Your task to perform on an android device: Look up the best rated desk lamps on IKEA Image 0: 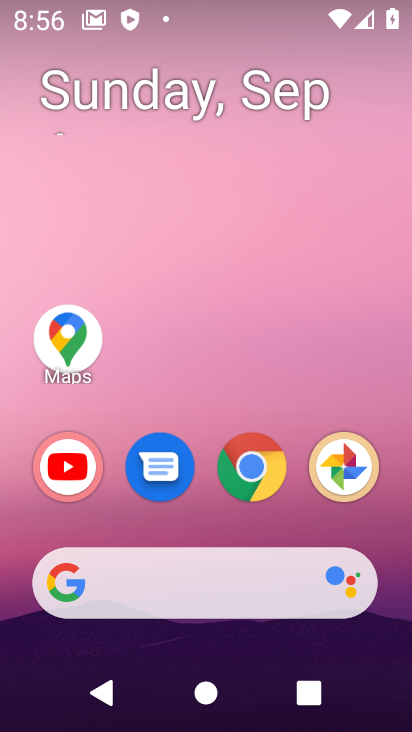
Step 0: click (251, 461)
Your task to perform on an android device: Look up the best rated desk lamps on IKEA Image 1: 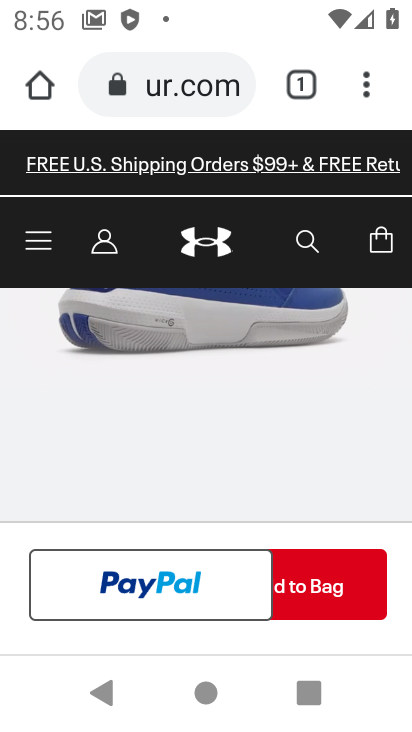
Step 1: click (219, 72)
Your task to perform on an android device: Look up the best rated desk lamps on IKEA Image 2: 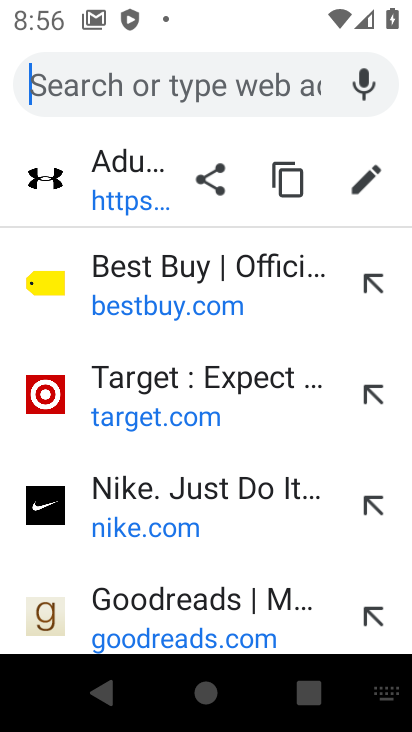
Step 2: type "ikea"
Your task to perform on an android device: Look up the best rated desk lamps on IKEA Image 3: 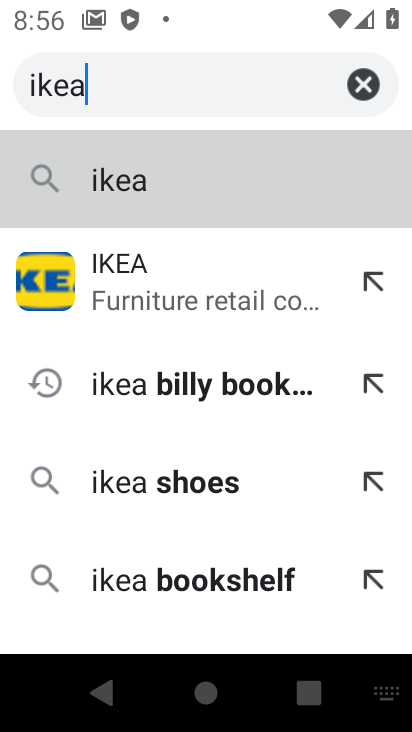
Step 3: type ""
Your task to perform on an android device: Look up the best rated desk lamps on IKEA Image 4: 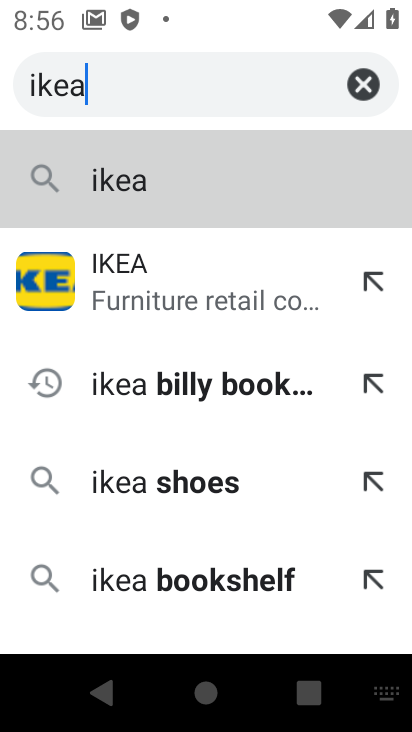
Step 4: click (126, 296)
Your task to perform on an android device: Look up the best rated desk lamps on IKEA Image 5: 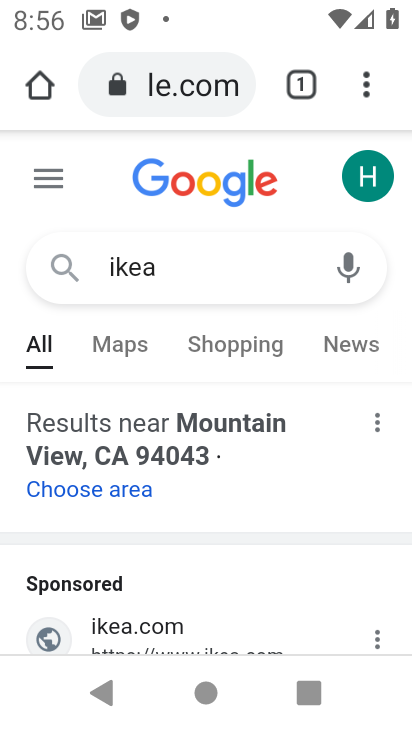
Step 5: drag from (356, 568) to (382, 288)
Your task to perform on an android device: Look up the best rated desk lamps on IKEA Image 6: 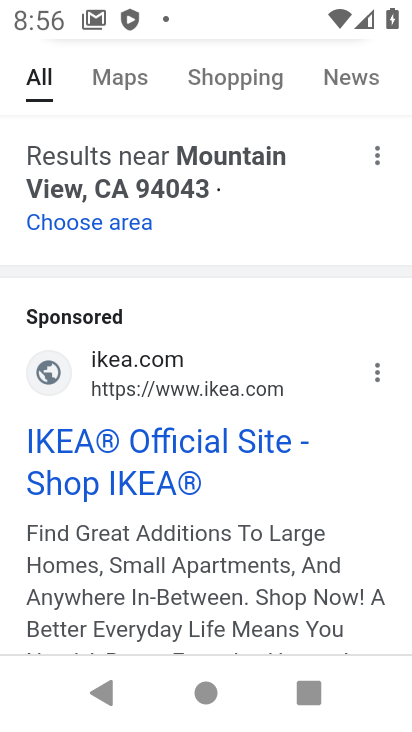
Step 6: click (57, 444)
Your task to perform on an android device: Look up the best rated desk lamps on IKEA Image 7: 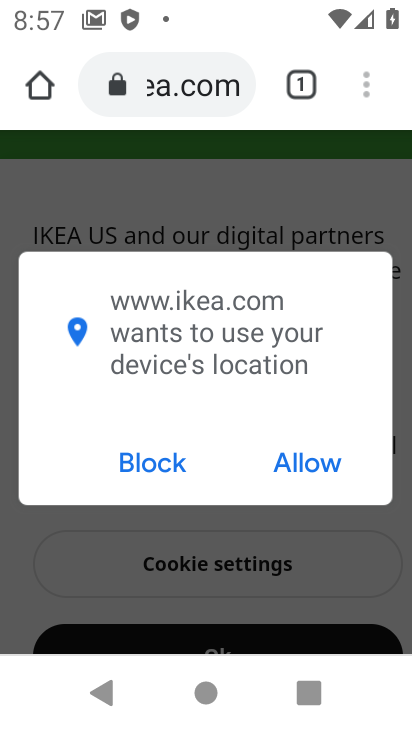
Step 7: click (151, 461)
Your task to perform on an android device: Look up the best rated desk lamps on IKEA Image 8: 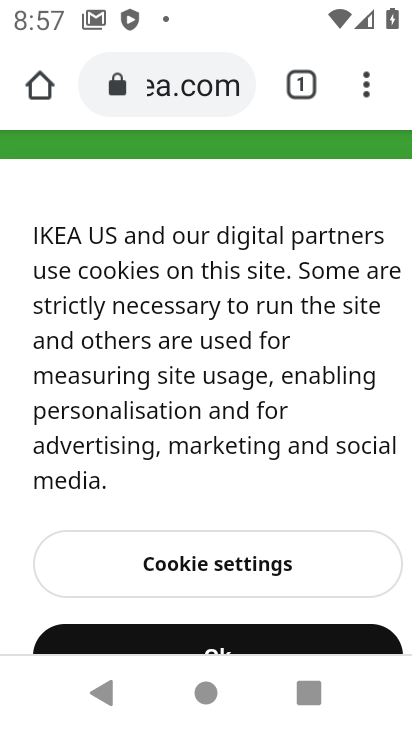
Step 8: drag from (373, 516) to (389, 198)
Your task to perform on an android device: Look up the best rated desk lamps on IKEA Image 9: 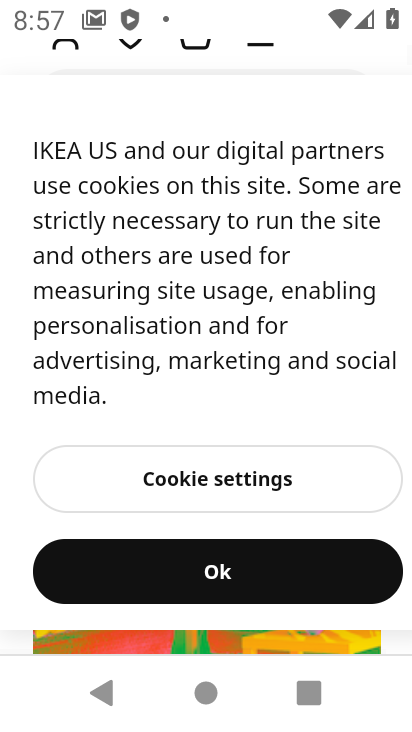
Step 9: click (380, 224)
Your task to perform on an android device: Look up the best rated desk lamps on IKEA Image 10: 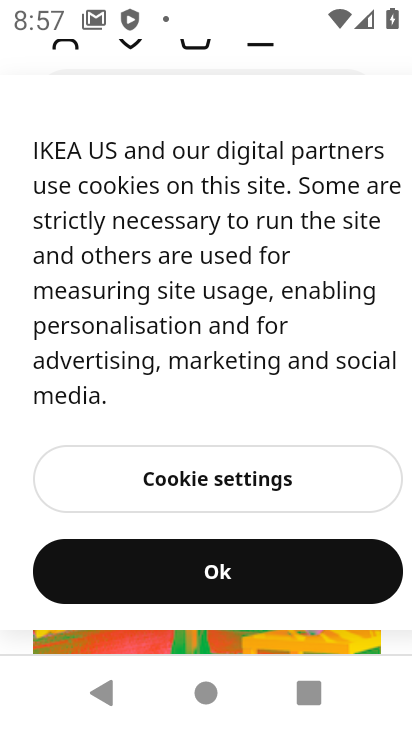
Step 10: drag from (404, 566) to (389, 211)
Your task to perform on an android device: Look up the best rated desk lamps on IKEA Image 11: 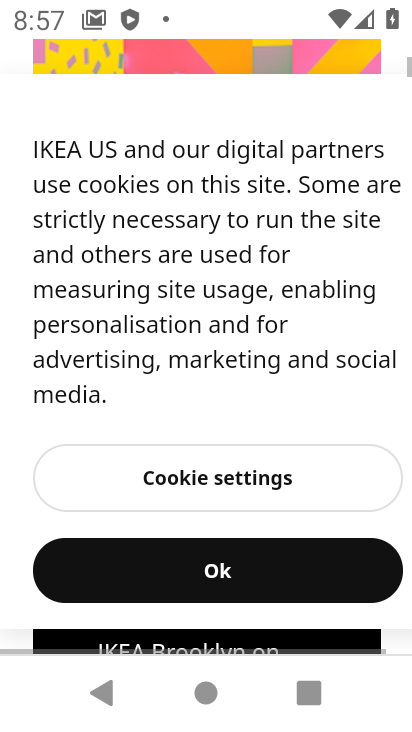
Step 11: drag from (333, 388) to (323, 130)
Your task to perform on an android device: Look up the best rated desk lamps on IKEA Image 12: 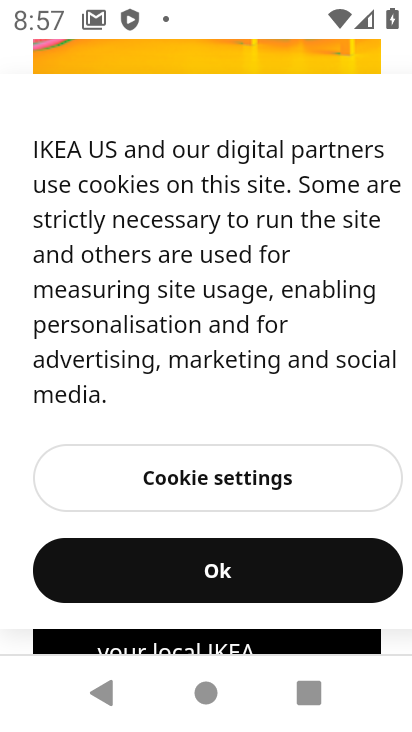
Step 12: drag from (399, 515) to (408, 208)
Your task to perform on an android device: Look up the best rated desk lamps on IKEA Image 13: 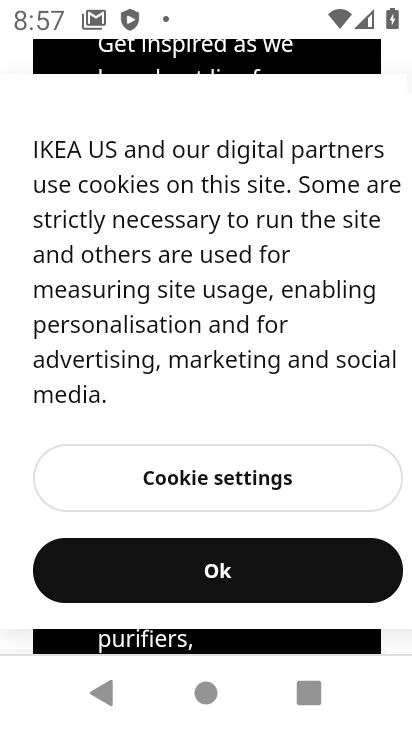
Step 13: drag from (392, 520) to (396, 199)
Your task to perform on an android device: Look up the best rated desk lamps on IKEA Image 14: 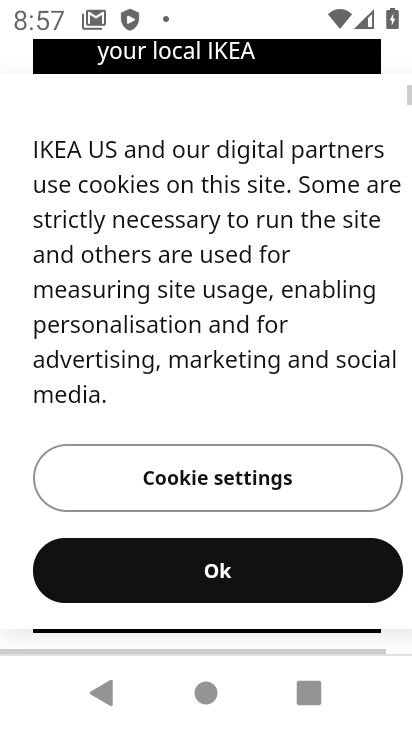
Step 14: drag from (363, 380) to (326, 32)
Your task to perform on an android device: Look up the best rated desk lamps on IKEA Image 15: 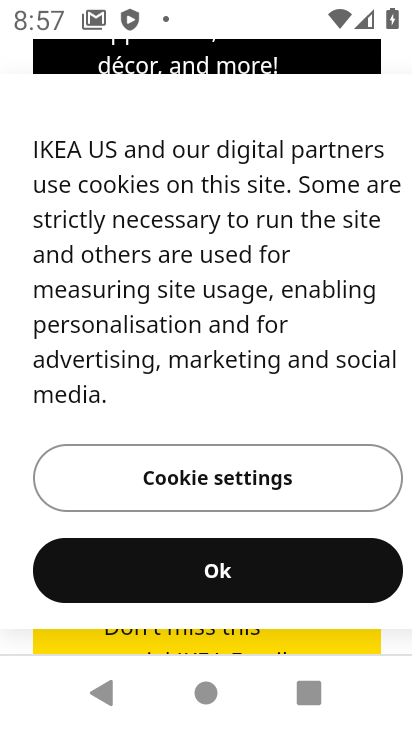
Step 15: drag from (366, 351) to (361, 561)
Your task to perform on an android device: Look up the best rated desk lamps on IKEA Image 16: 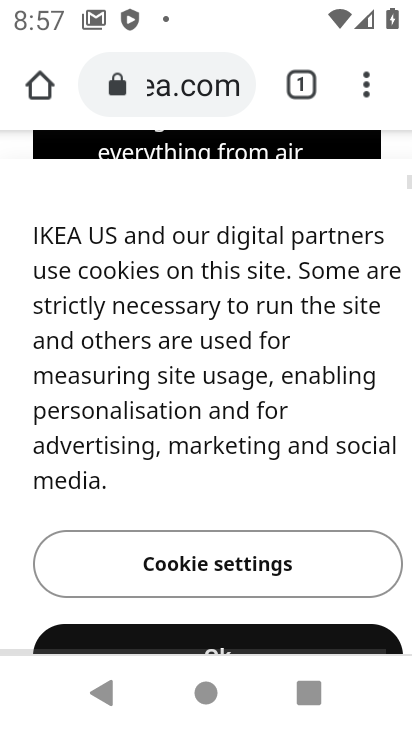
Step 16: drag from (366, 268) to (360, 714)
Your task to perform on an android device: Look up the best rated desk lamps on IKEA Image 17: 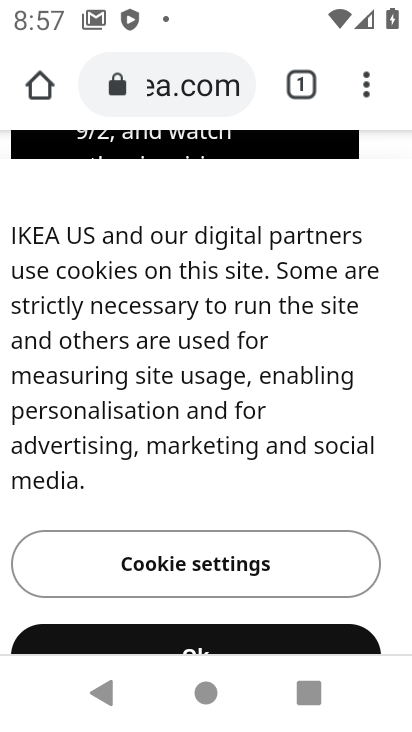
Step 17: drag from (358, 302) to (318, 638)
Your task to perform on an android device: Look up the best rated desk lamps on IKEA Image 18: 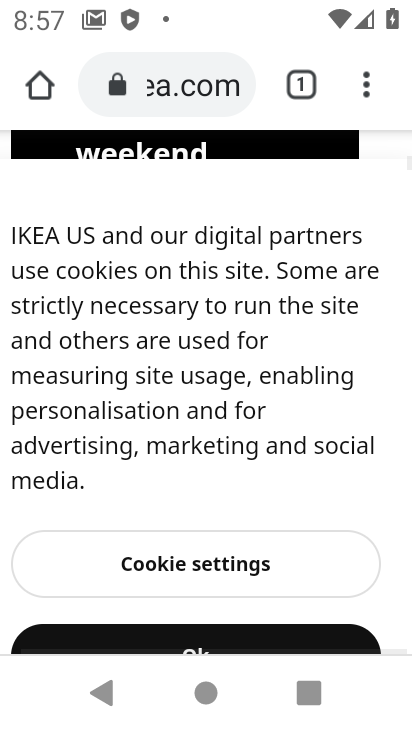
Step 18: drag from (376, 264) to (356, 720)
Your task to perform on an android device: Look up the best rated desk lamps on IKEA Image 19: 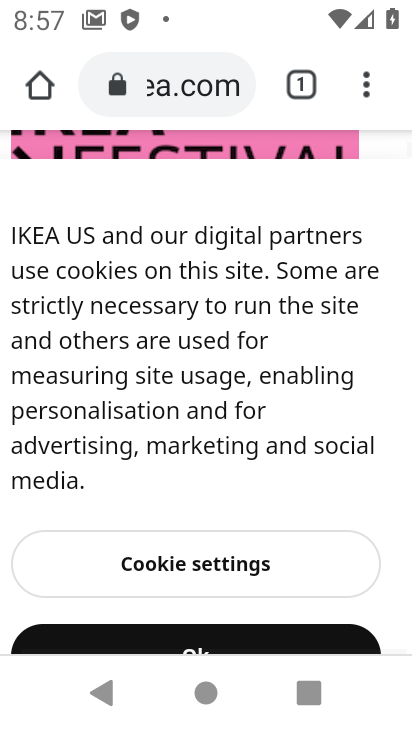
Step 19: drag from (344, 235) to (346, 78)
Your task to perform on an android device: Look up the best rated desk lamps on IKEA Image 20: 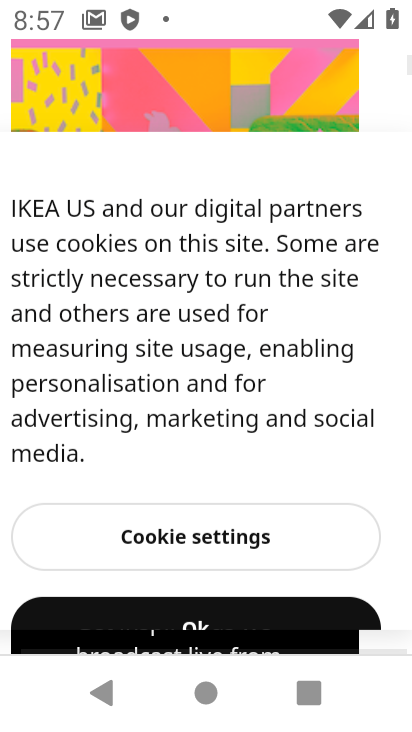
Step 20: drag from (382, 533) to (390, 184)
Your task to perform on an android device: Look up the best rated desk lamps on IKEA Image 21: 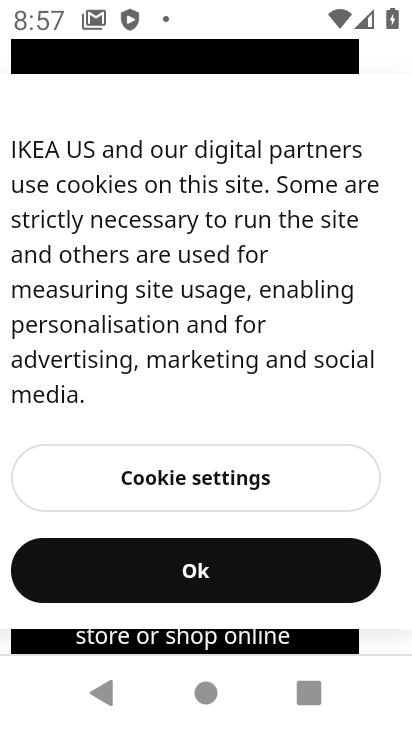
Step 21: drag from (399, 596) to (364, 203)
Your task to perform on an android device: Look up the best rated desk lamps on IKEA Image 22: 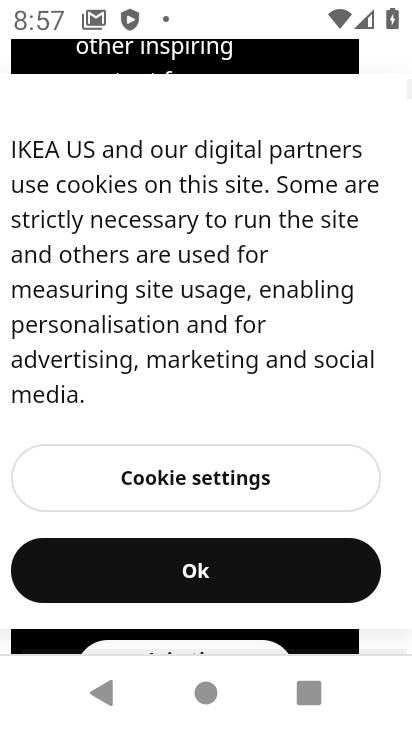
Step 22: drag from (350, 242) to (354, 95)
Your task to perform on an android device: Look up the best rated desk lamps on IKEA Image 23: 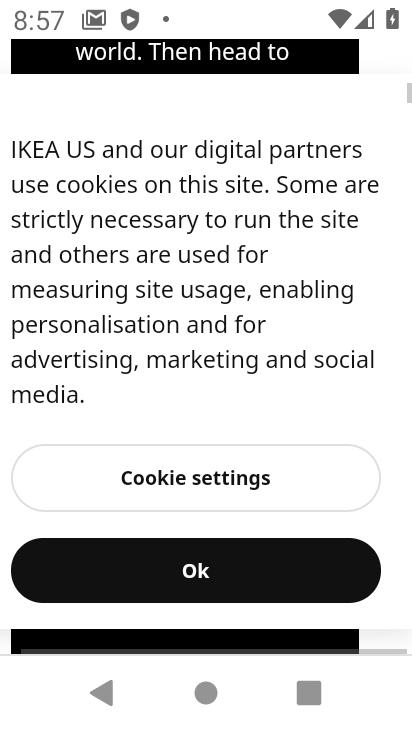
Step 23: drag from (158, 313) to (260, 61)
Your task to perform on an android device: Look up the best rated desk lamps on IKEA Image 24: 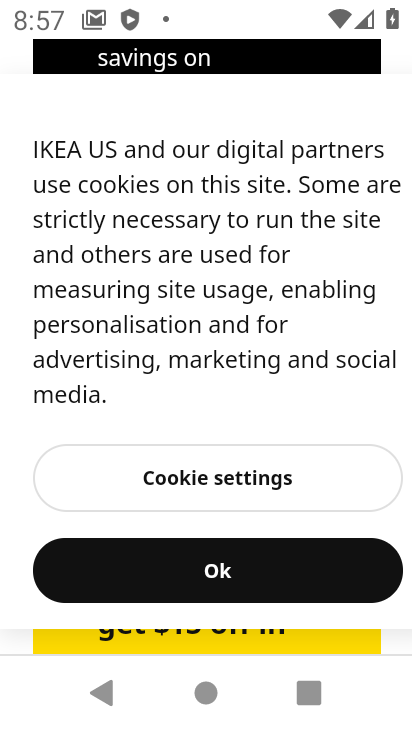
Step 24: drag from (389, 522) to (385, 215)
Your task to perform on an android device: Look up the best rated desk lamps on IKEA Image 25: 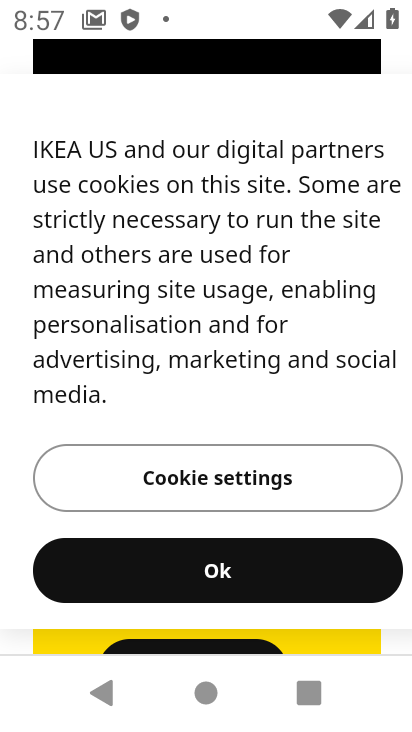
Step 25: drag from (389, 614) to (411, 215)
Your task to perform on an android device: Look up the best rated desk lamps on IKEA Image 26: 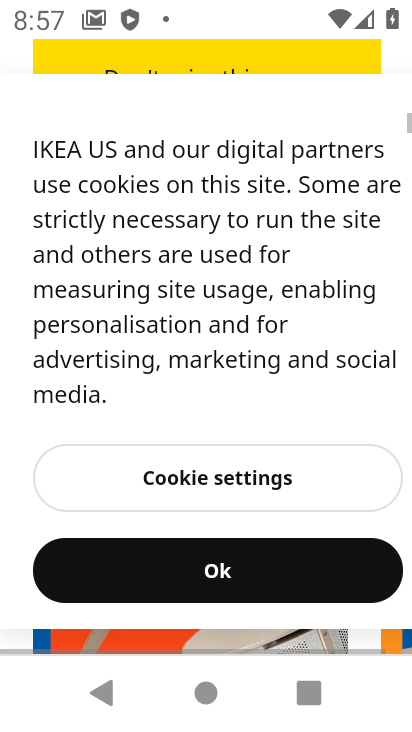
Step 26: drag from (386, 179) to (286, 458)
Your task to perform on an android device: Look up the best rated desk lamps on IKEA Image 27: 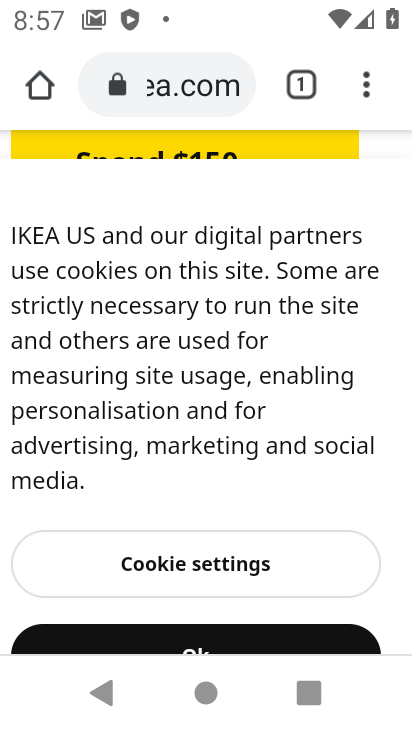
Step 27: drag from (364, 494) to (385, 159)
Your task to perform on an android device: Look up the best rated desk lamps on IKEA Image 28: 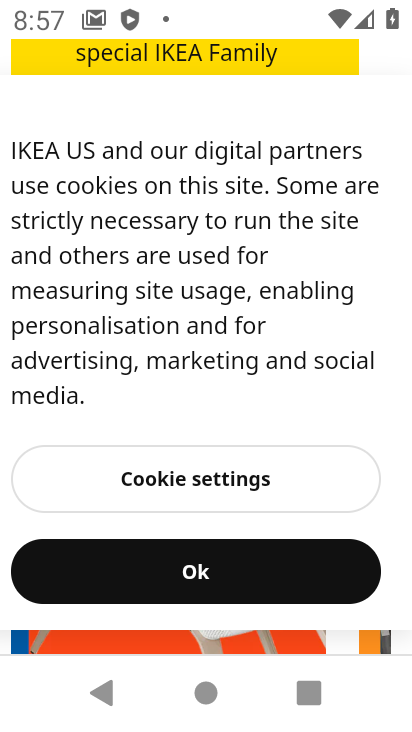
Step 28: drag from (381, 465) to (407, 149)
Your task to perform on an android device: Look up the best rated desk lamps on IKEA Image 29: 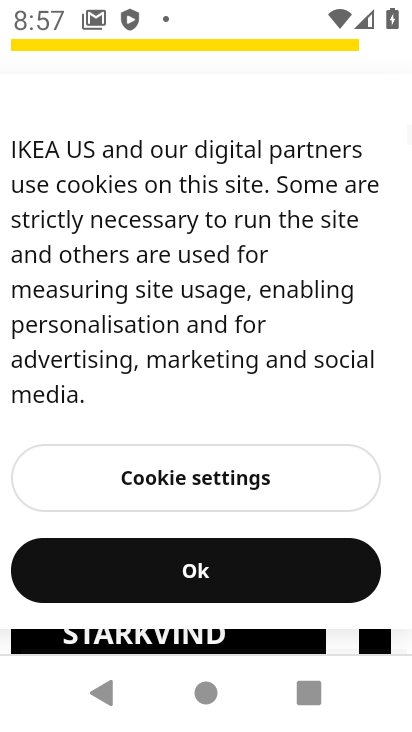
Step 29: drag from (379, 517) to (379, 172)
Your task to perform on an android device: Look up the best rated desk lamps on IKEA Image 30: 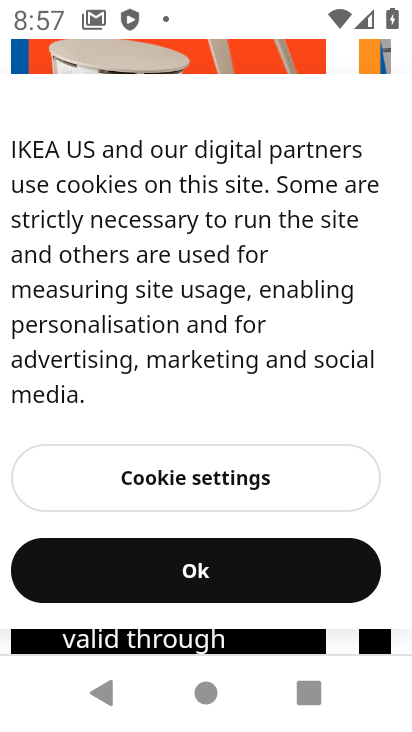
Step 30: drag from (383, 464) to (384, 101)
Your task to perform on an android device: Look up the best rated desk lamps on IKEA Image 31: 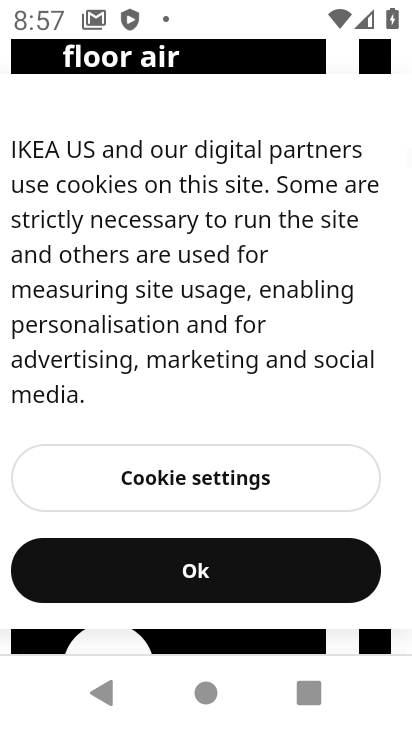
Step 31: drag from (403, 493) to (411, 155)
Your task to perform on an android device: Look up the best rated desk lamps on IKEA Image 32: 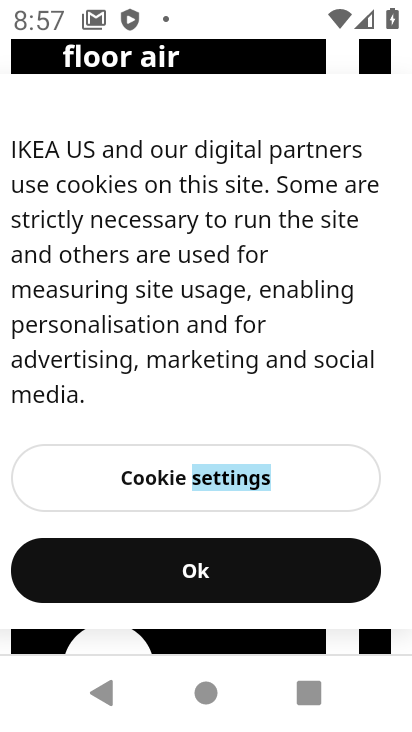
Step 32: drag from (389, 150) to (402, 506)
Your task to perform on an android device: Look up the best rated desk lamps on IKEA Image 33: 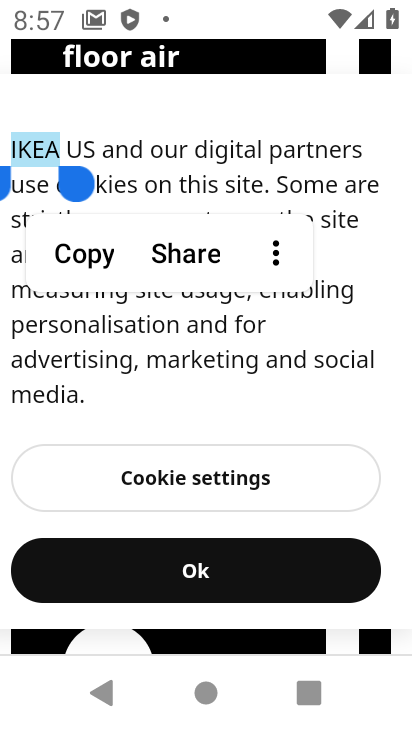
Step 33: drag from (370, 402) to (333, 108)
Your task to perform on an android device: Look up the best rated desk lamps on IKEA Image 34: 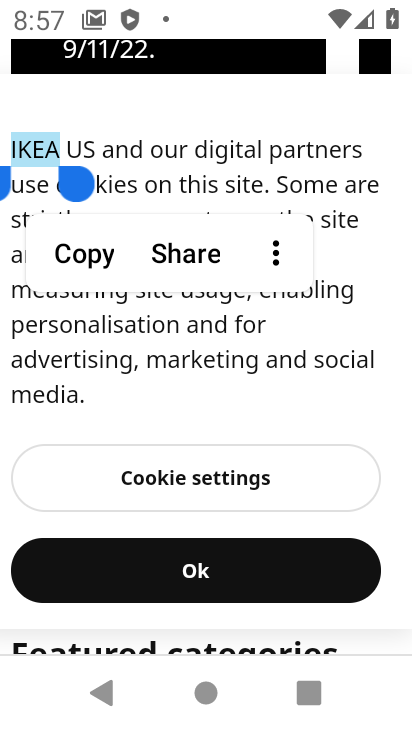
Step 34: click (391, 394)
Your task to perform on an android device: Look up the best rated desk lamps on IKEA Image 35: 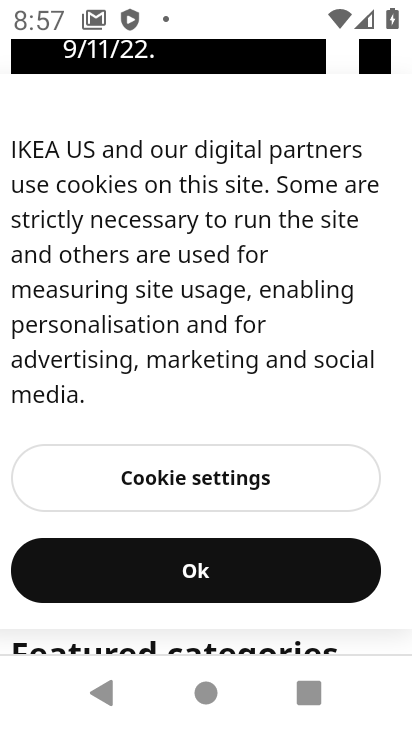
Step 35: drag from (397, 493) to (394, 127)
Your task to perform on an android device: Look up the best rated desk lamps on IKEA Image 36: 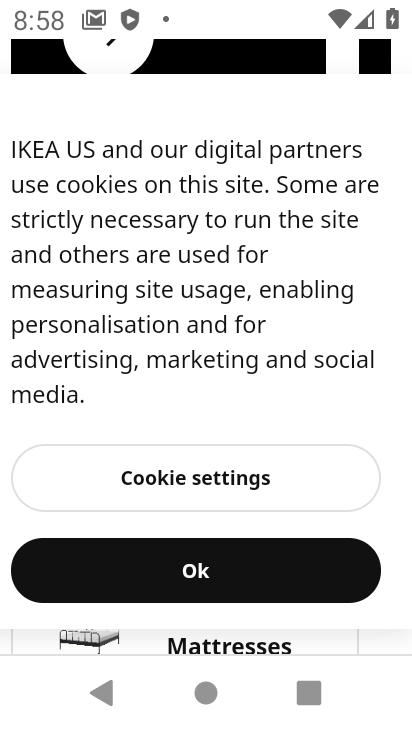
Step 36: drag from (391, 390) to (380, 71)
Your task to perform on an android device: Look up the best rated desk lamps on IKEA Image 37: 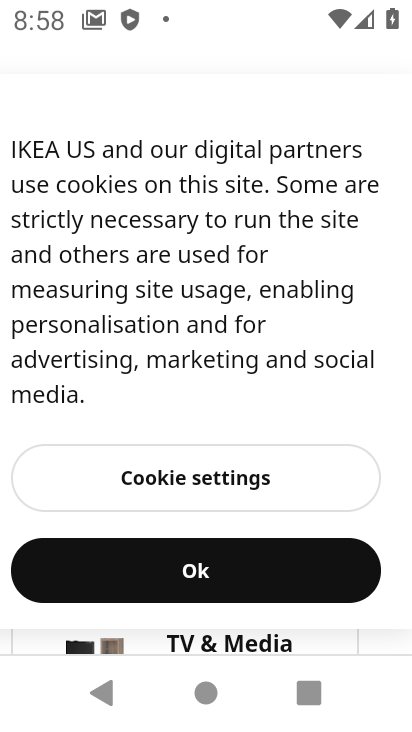
Step 37: press back button
Your task to perform on an android device: Look up the best rated desk lamps on IKEA Image 38: 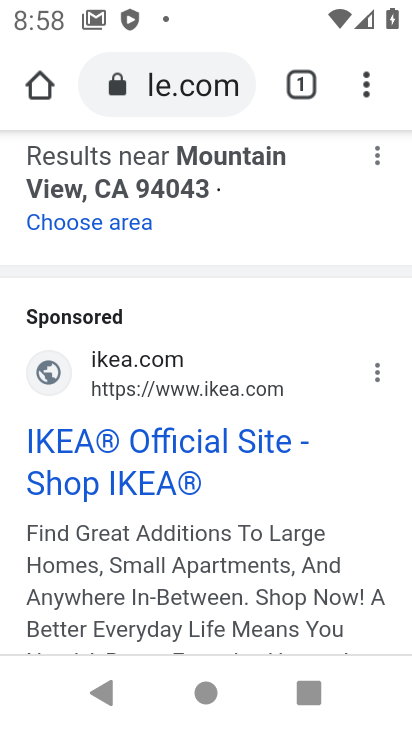
Step 38: drag from (359, 425) to (377, 91)
Your task to perform on an android device: Look up the best rated desk lamps on IKEA Image 39: 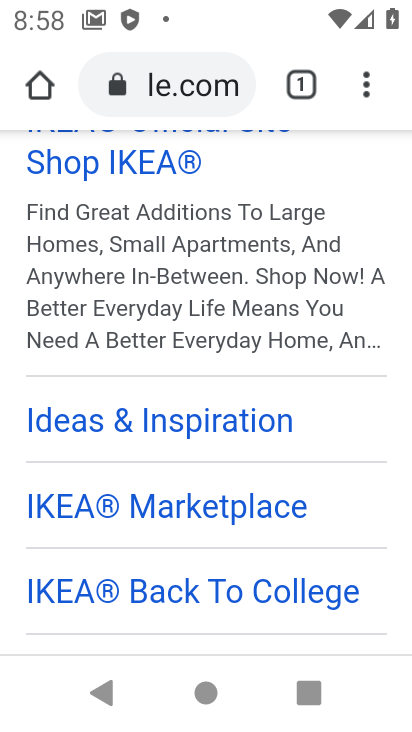
Step 39: drag from (390, 443) to (397, 160)
Your task to perform on an android device: Look up the best rated desk lamps on IKEA Image 40: 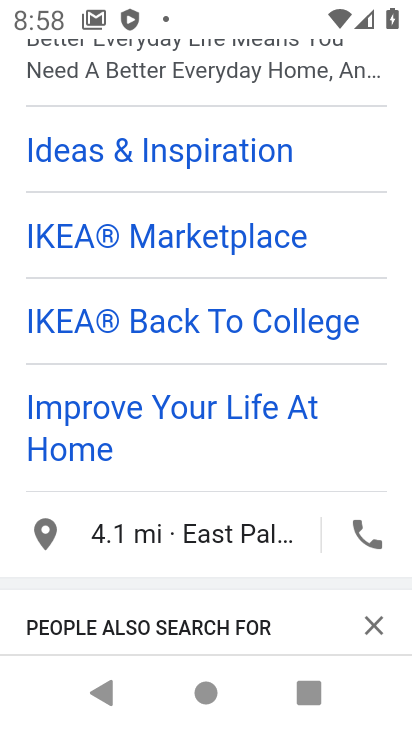
Step 40: drag from (403, 561) to (391, 140)
Your task to perform on an android device: Look up the best rated desk lamps on IKEA Image 41: 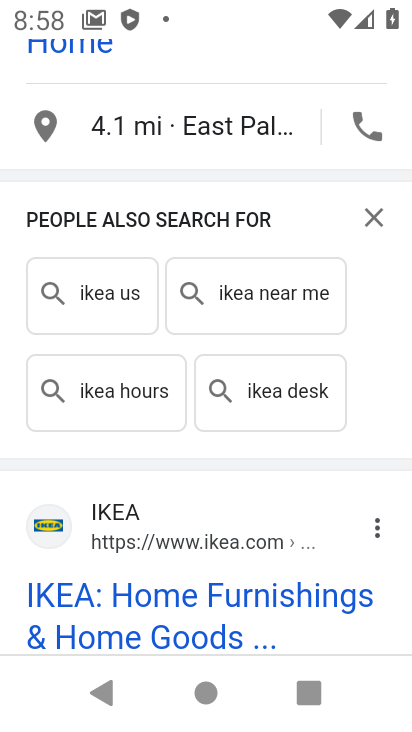
Step 41: click (126, 594)
Your task to perform on an android device: Look up the best rated desk lamps on IKEA Image 42: 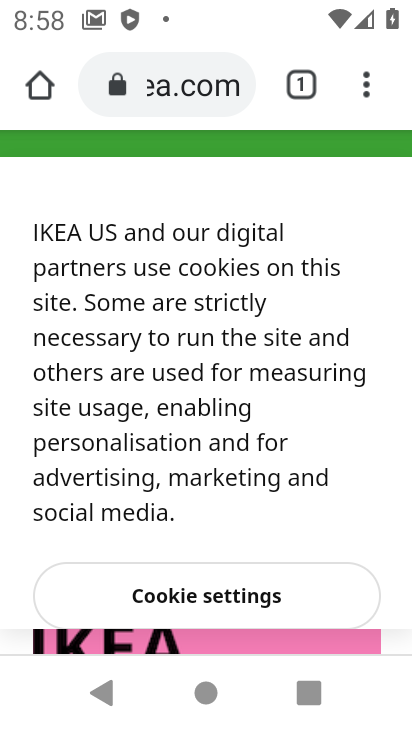
Step 42: drag from (393, 384) to (391, 138)
Your task to perform on an android device: Look up the best rated desk lamps on IKEA Image 43: 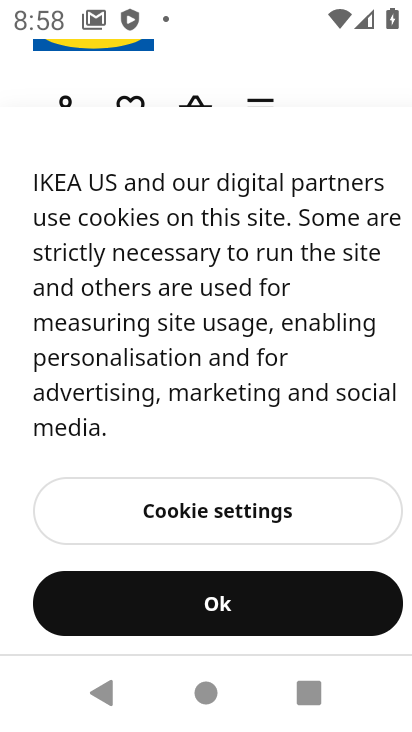
Step 43: click (216, 615)
Your task to perform on an android device: Look up the best rated desk lamps on IKEA Image 44: 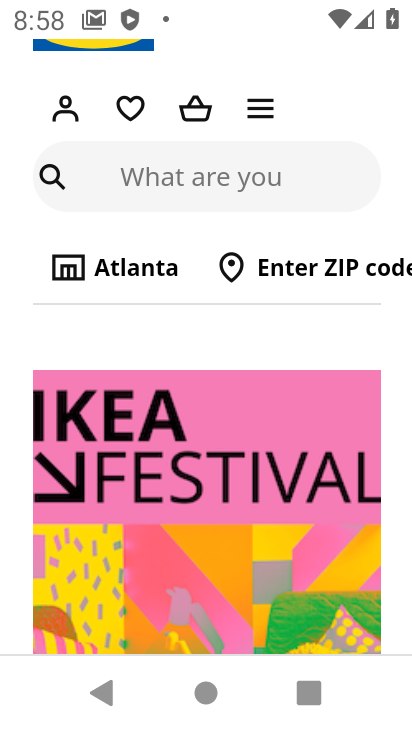
Step 44: click (160, 172)
Your task to perform on an android device: Look up the best rated desk lamps on IKEA Image 45: 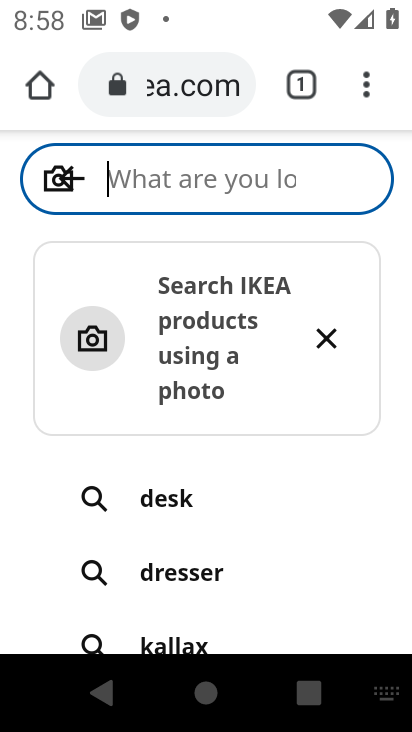
Step 45: type "desk lamps"
Your task to perform on an android device: Look up the best rated desk lamps on IKEA Image 46: 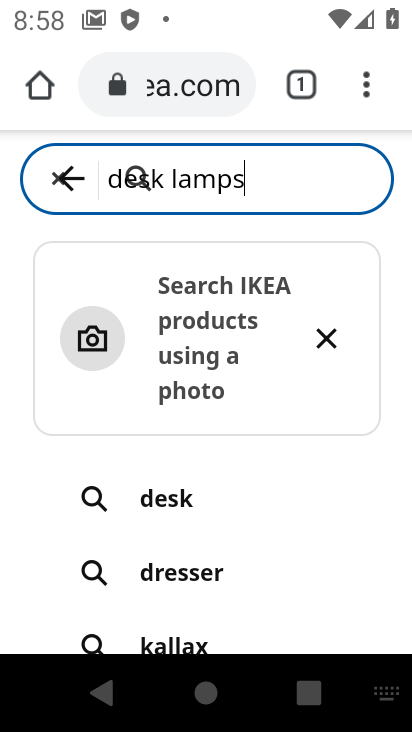
Step 46: type ""
Your task to perform on an android device: Look up the best rated desk lamps on IKEA Image 47: 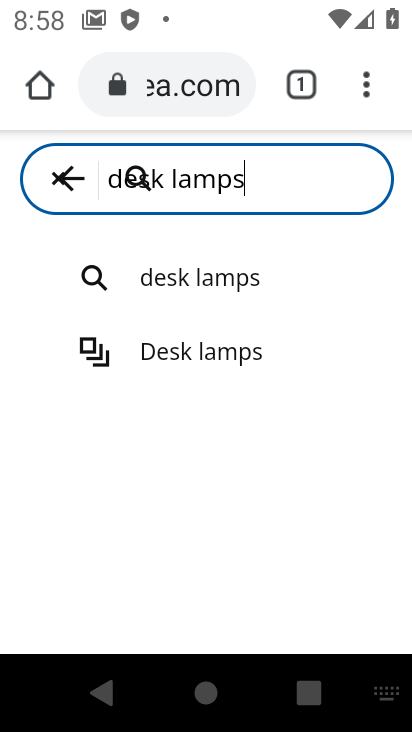
Step 47: click (209, 268)
Your task to perform on an android device: Look up the best rated desk lamps on IKEA Image 48: 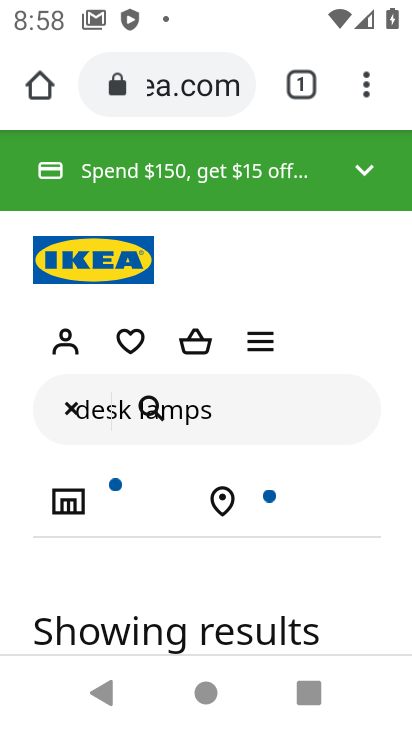
Step 48: task complete